Your task to perform on an android device: open chrome and create a bookmark for the current page Image 0: 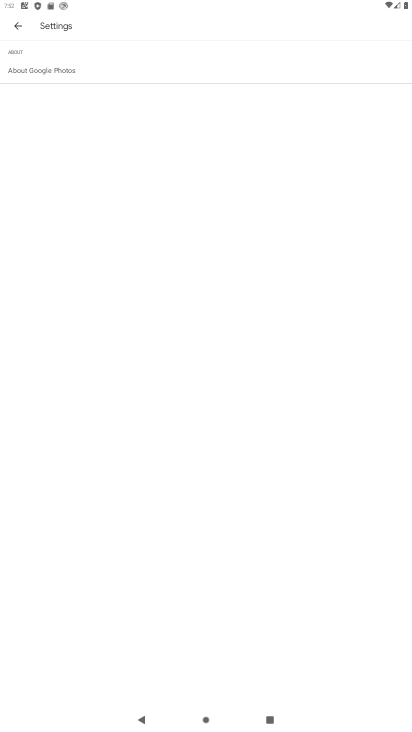
Step 0: press home button
Your task to perform on an android device: open chrome and create a bookmark for the current page Image 1: 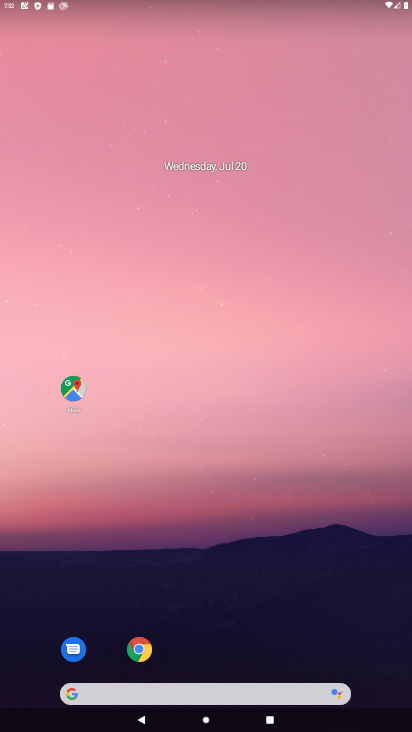
Step 1: click (139, 662)
Your task to perform on an android device: open chrome and create a bookmark for the current page Image 2: 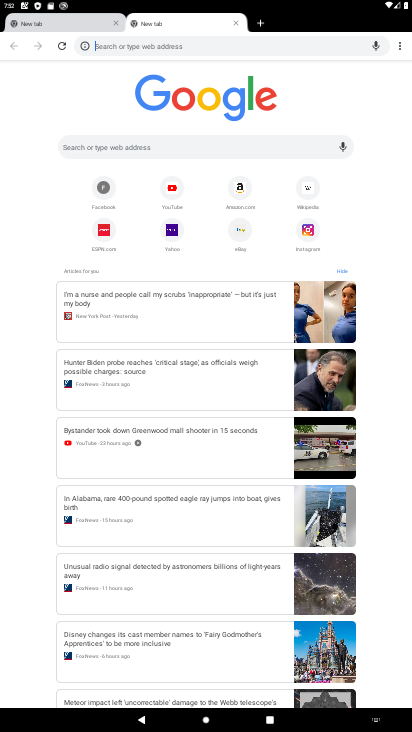
Step 2: click (399, 46)
Your task to perform on an android device: open chrome and create a bookmark for the current page Image 3: 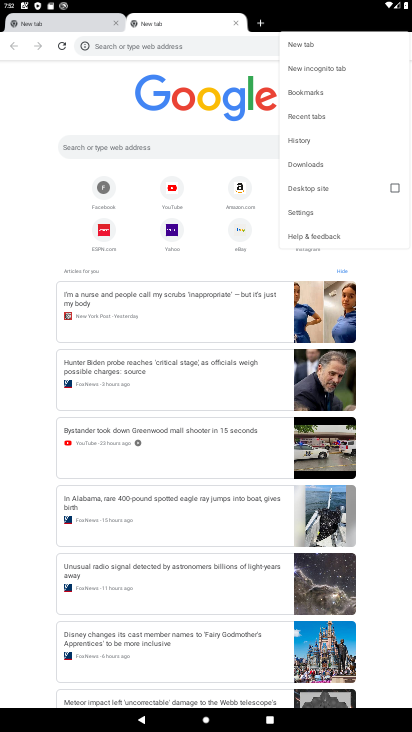
Step 3: click (303, 96)
Your task to perform on an android device: open chrome and create a bookmark for the current page Image 4: 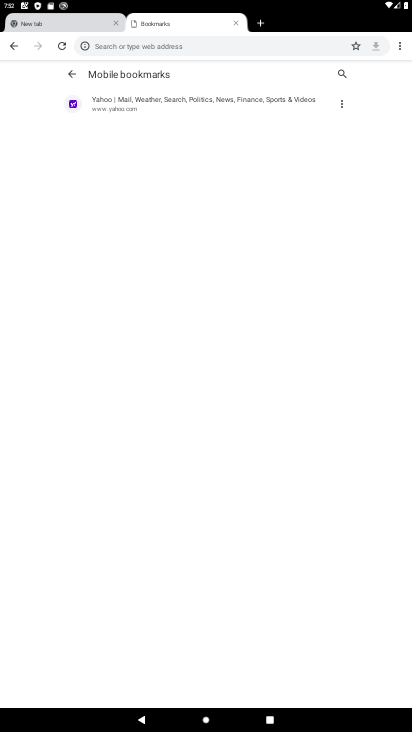
Step 4: click (157, 97)
Your task to perform on an android device: open chrome and create a bookmark for the current page Image 5: 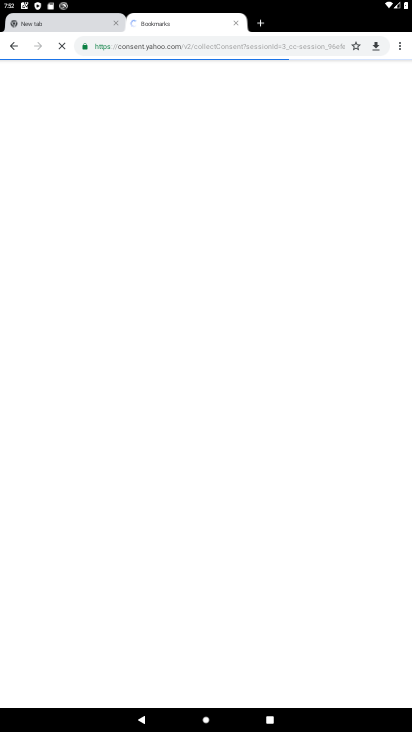
Step 5: task complete